Your task to perform on an android device: find snoozed emails in the gmail app Image 0: 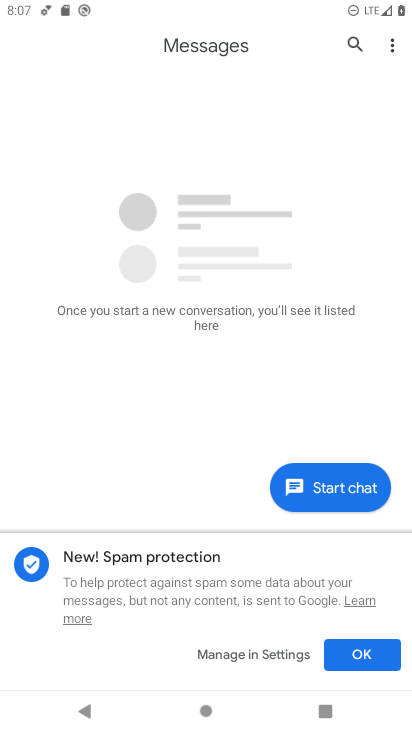
Step 0: press home button
Your task to perform on an android device: find snoozed emails in the gmail app Image 1: 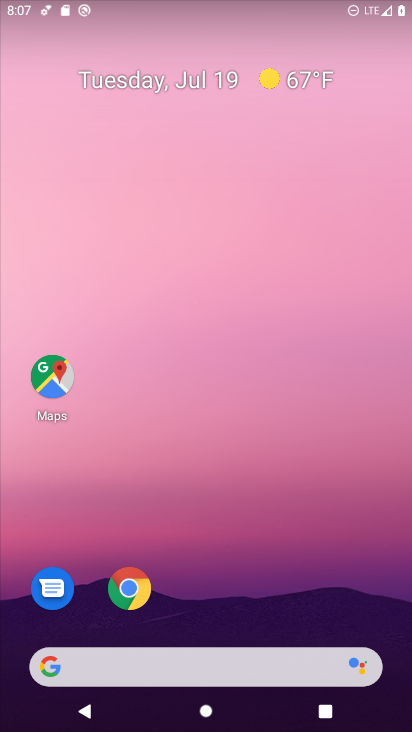
Step 1: drag from (308, 582) to (353, 105)
Your task to perform on an android device: find snoozed emails in the gmail app Image 2: 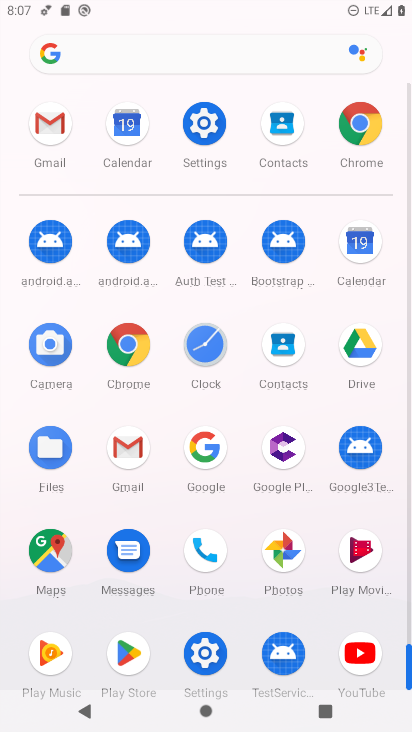
Step 2: click (126, 456)
Your task to perform on an android device: find snoozed emails in the gmail app Image 3: 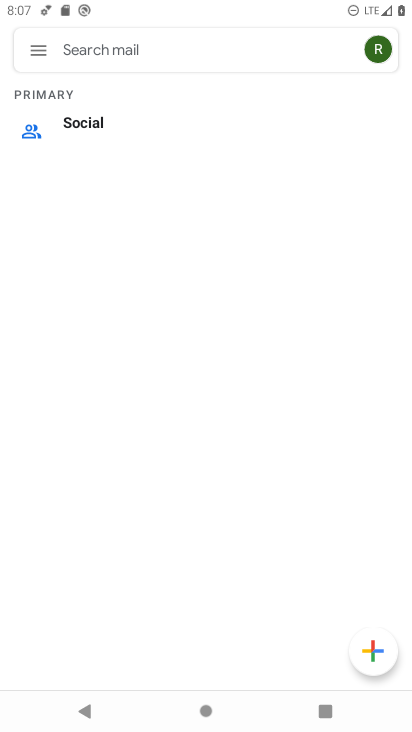
Step 3: click (42, 43)
Your task to perform on an android device: find snoozed emails in the gmail app Image 4: 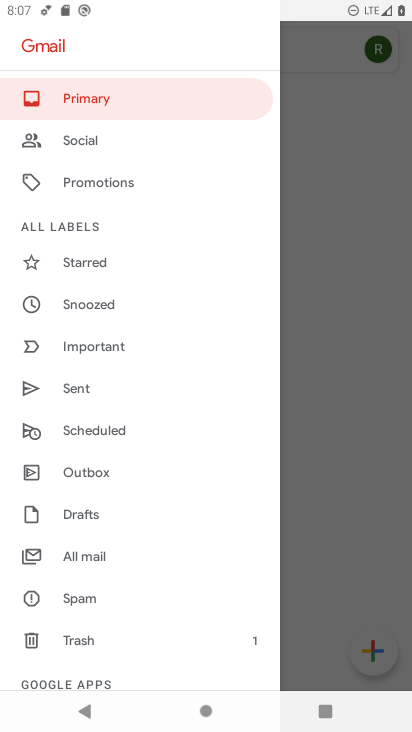
Step 4: click (91, 306)
Your task to perform on an android device: find snoozed emails in the gmail app Image 5: 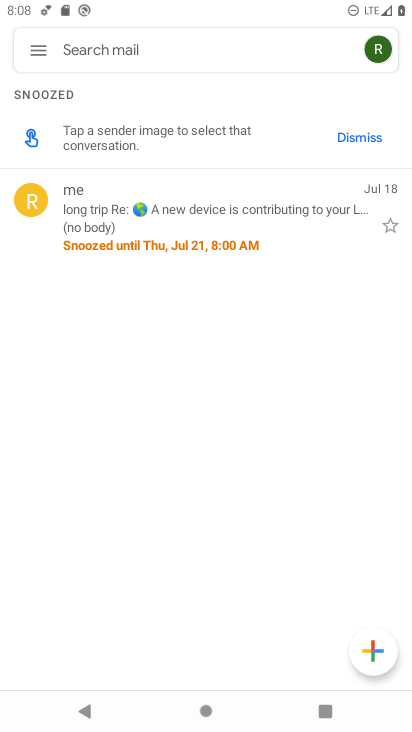
Step 5: task complete